Your task to perform on an android device: toggle notifications settings in the gmail app Image 0: 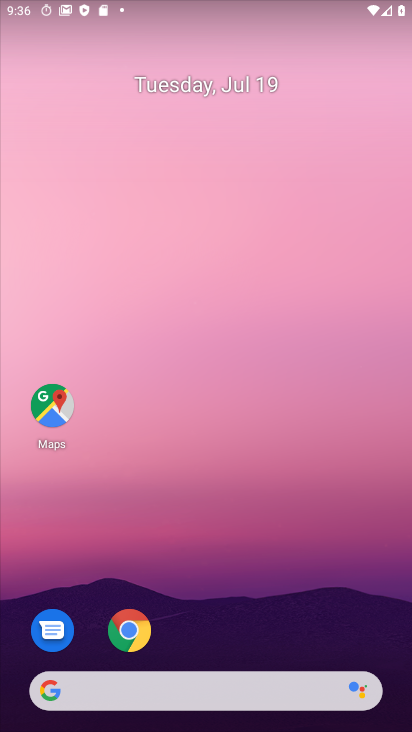
Step 0: drag from (161, 653) to (161, 212)
Your task to perform on an android device: toggle notifications settings in the gmail app Image 1: 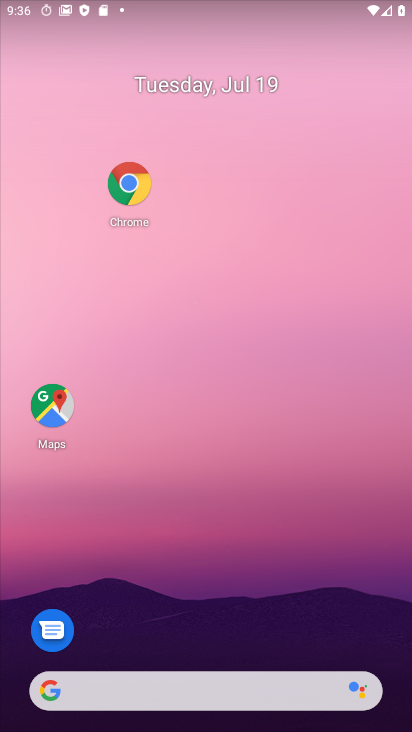
Step 1: drag from (210, 650) to (218, 79)
Your task to perform on an android device: toggle notifications settings in the gmail app Image 2: 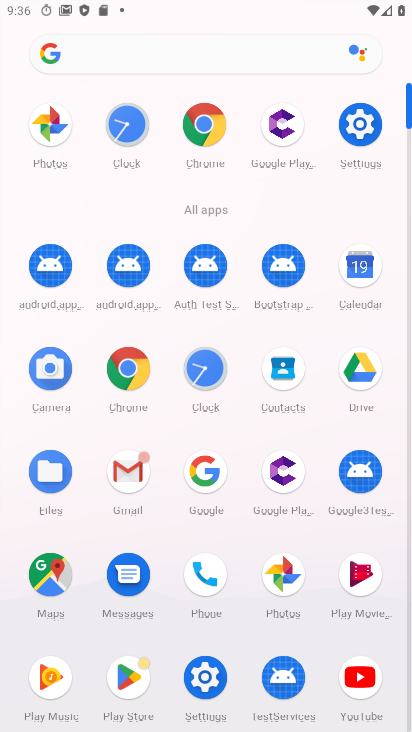
Step 2: click (126, 476)
Your task to perform on an android device: toggle notifications settings in the gmail app Image 3: 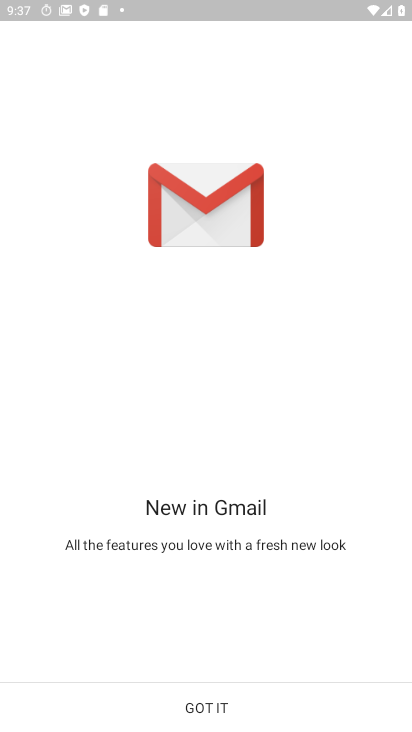
Step 3: click (240, 718)
Your task to perform on an android device: toggle notifications settings in the gmail app Image 4: 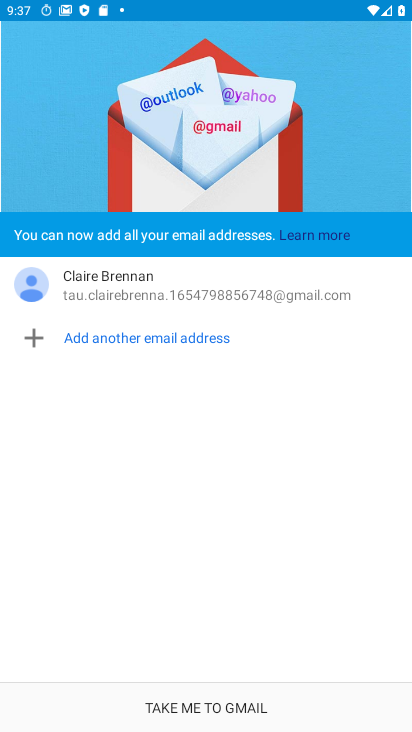
Step 4: click (262, 688)
Your task to perform on an android device: toggle notifications settings in the gmail app Image 5: 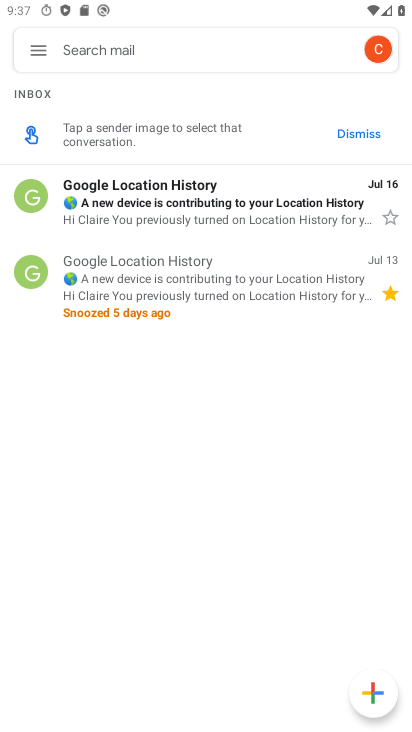
Step 5: click (37, 39)
Your task to perform on an android device: toggle notifications settings in the gmail app Image 6: 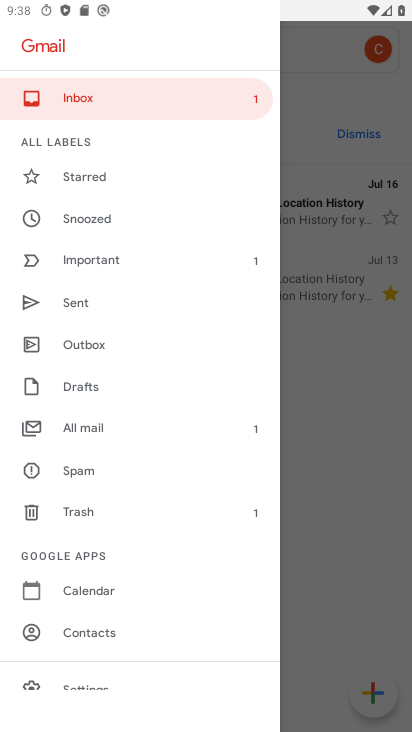
Step 6: click (45, 681)
Your task to perform on an android device: toggle notifications settings in the gmail app Image 7: 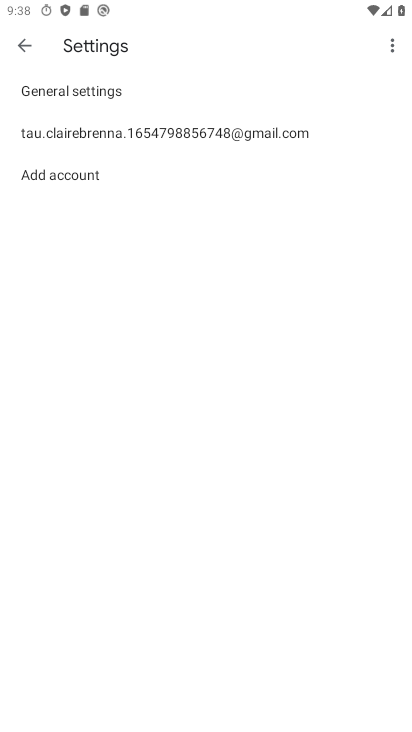
Step 7: click (61, 95)
Your task to perform on an android device: toggle notifications settings in the gmail app Image 8: 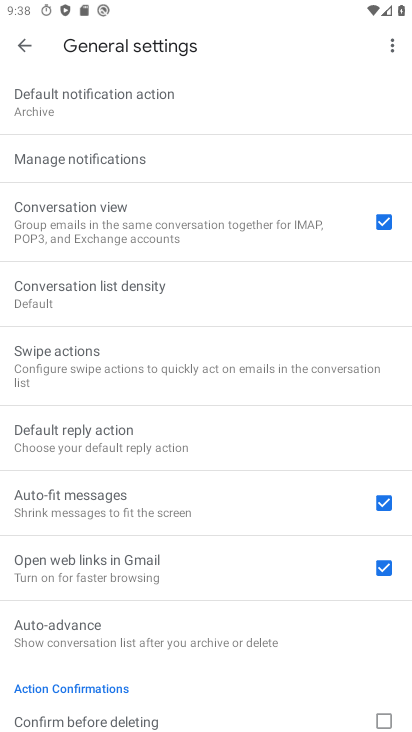
Step 8: click (96, 149)
Your task to perform on an android device: toggle notifications settings in the gmail app Image 9: 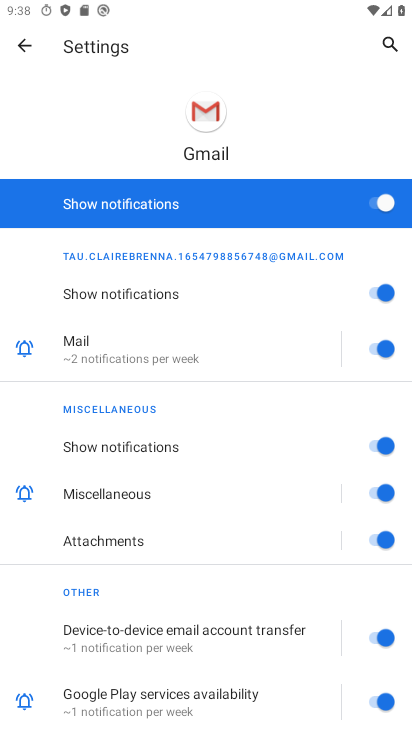
Step 9: click (389, 206)
Your task to perform on an android device: toggle notifications settings in the gmail app Image 10: 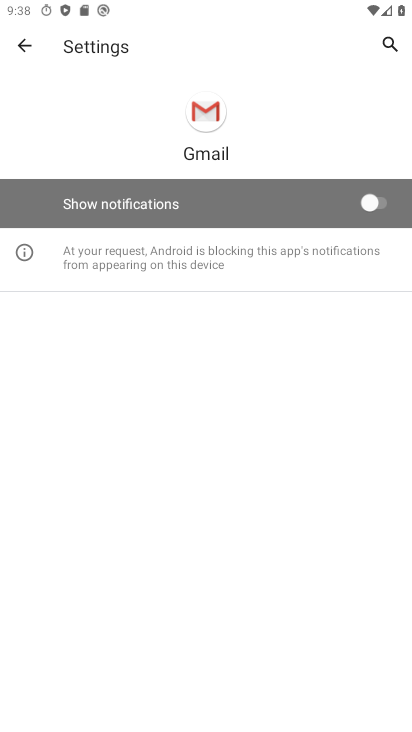
Step 10: task complete